Your task to perform on an android device: Go to settings Image 0: 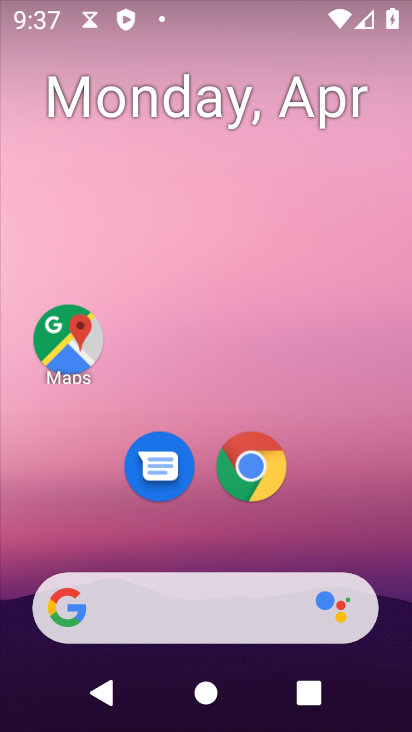
Step 0: drag from (203, 542) to (240, 197)
Your task to perform on an android device: Go to settings Image 1: 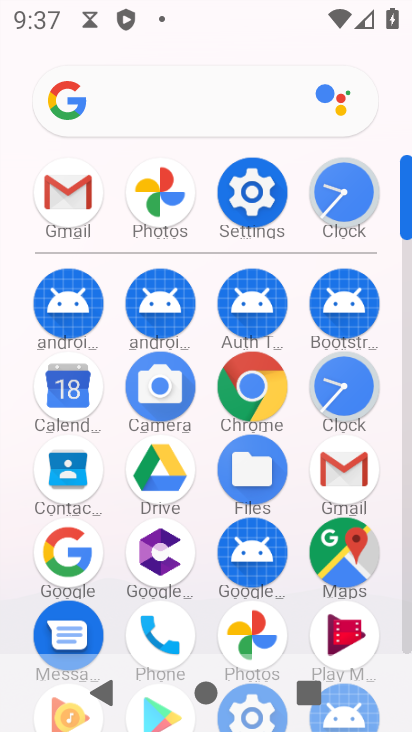
Step 1: click (264, 214)
Your task to perform on an android device: Go to settings Image 2: 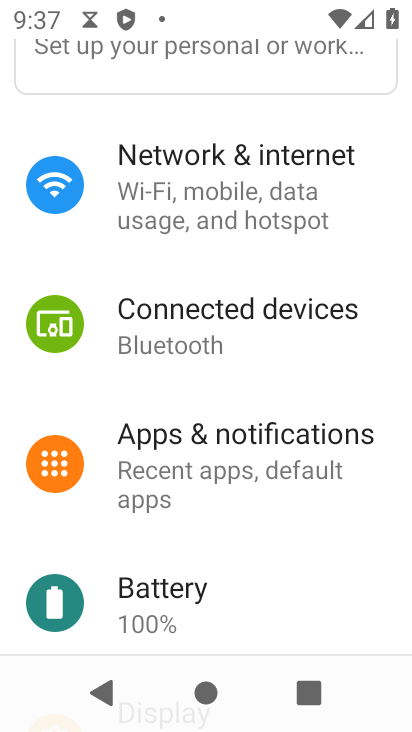
Step 2: task complete